Your task to perform on an android device: Open the calendar and show me this week's events? Image 0: 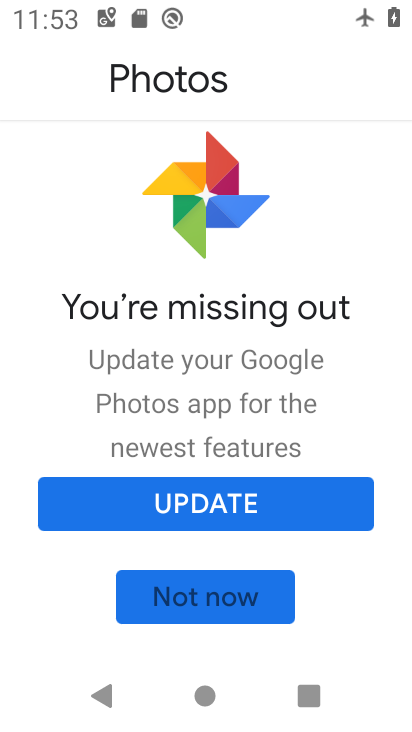
Step 0: press home button
Your task to perform on an android device: Open the calendar and show me this week's events? Image 1: 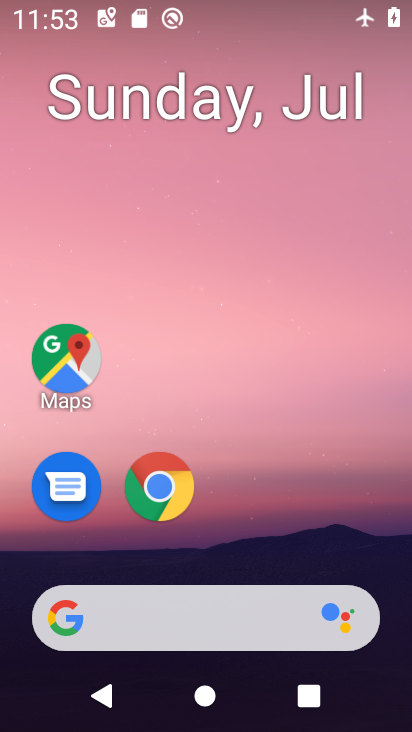
Step 1: drag from (374, 535) to (372, 138)
Your task to perform on an android device: Open the calendar and show me this week's events? Image 2: 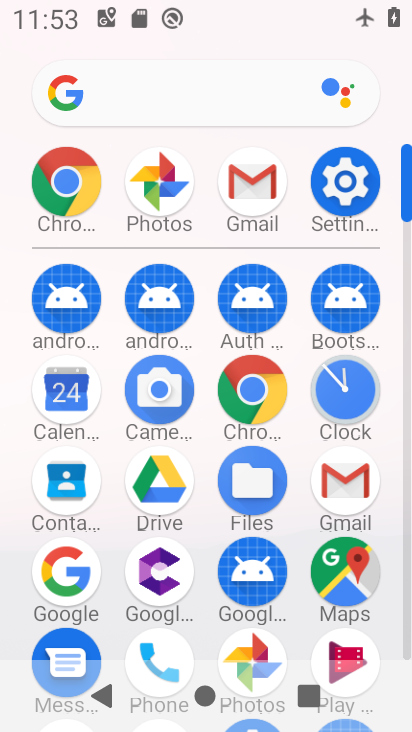
Step 2: click (75, 397)
Your task to perform on an android device: Open the calendar and show me this week's events? Image 3: 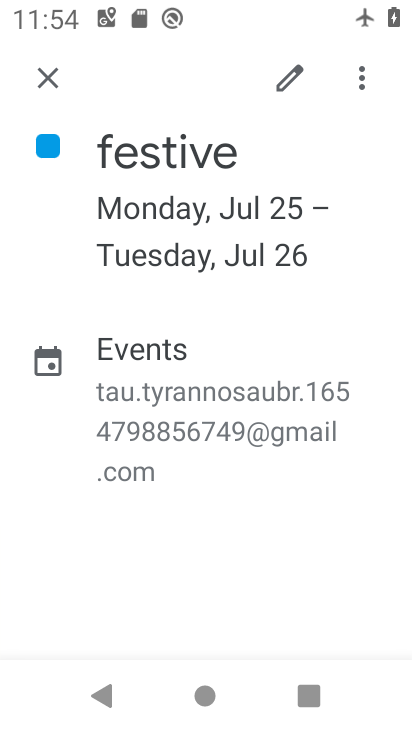
Step 3: task complete